Your task to perform on an android device: toggle notification dots Image 0: 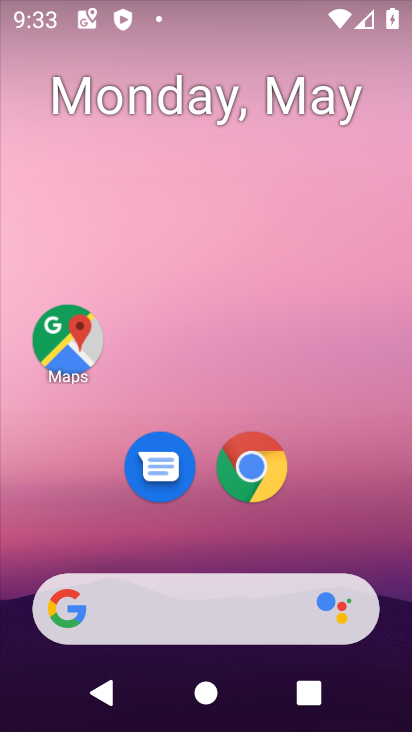
Step 0: drag from (185, 656) to (253, 81)
Your task to perform on an android device: toggle notification dots Image 1: 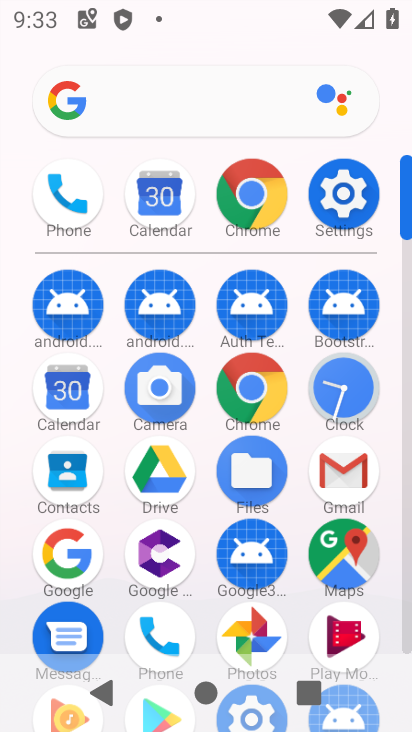
Step 1: click (351, 198)
Your task to perform on an android device: toggle notification dots Image 2: 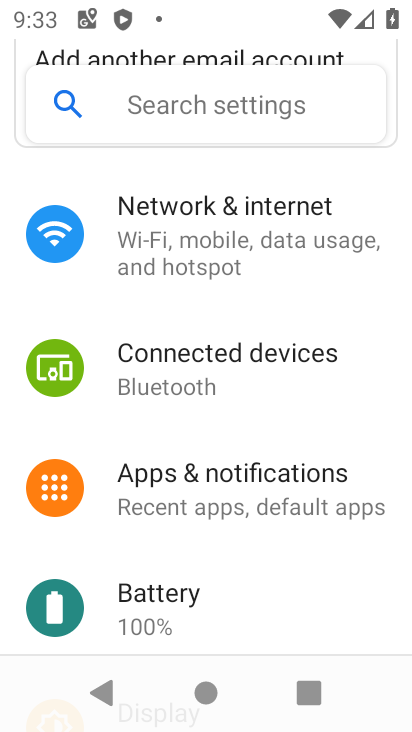
Step 2: click (151, 107)
Your task to perform on an android device: toggle notification dots Image 3: 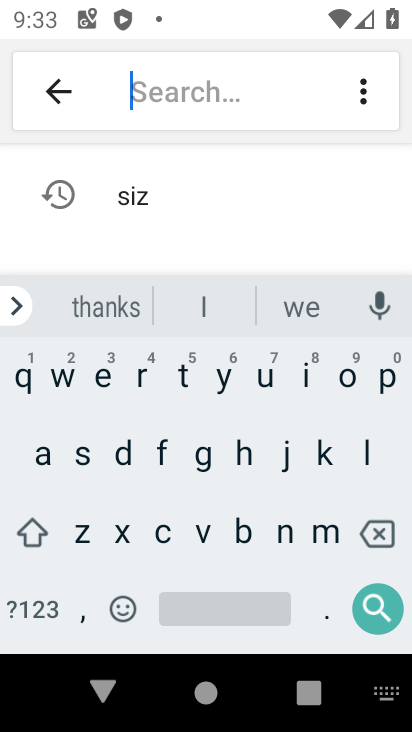
Step 3: click (122, 447)
Your task to perform on an android device: toggle notification dots Image 4: 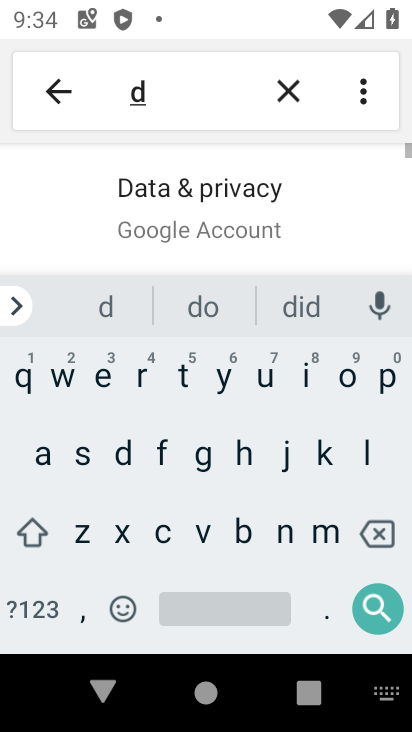
Step 4: click (352, 374)
Your task to perform on an android device: toggle notification dots Image 5: 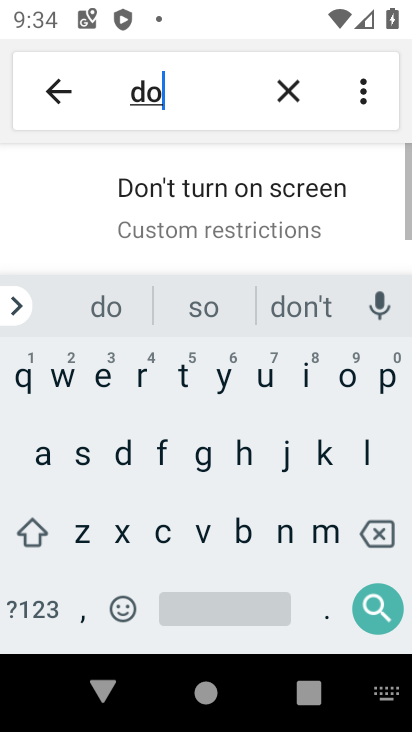
Step 5: click (184, 371)
Your task to perform on an android device: toggle notification dots Image 6: 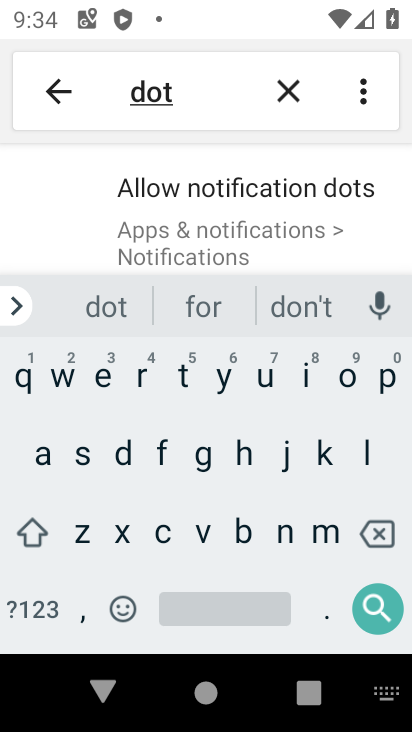
Step 6: click (243, 185)
Your task to perform on an android device: toggle notification dots Image 7: 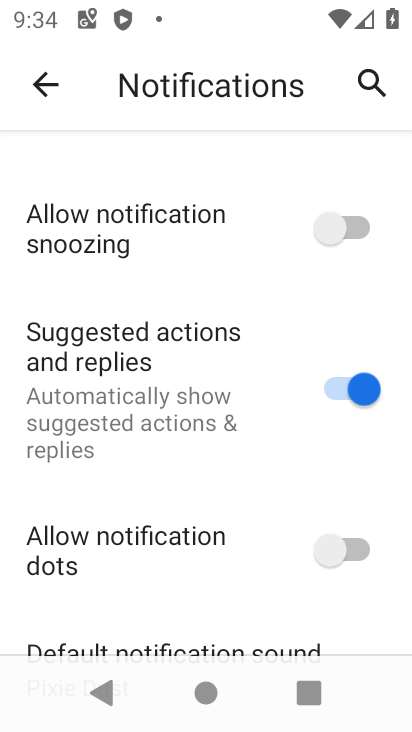
Step 7: task complete